Your task to perform on an android device: toggle notifications settings in the gmail app Image 0: 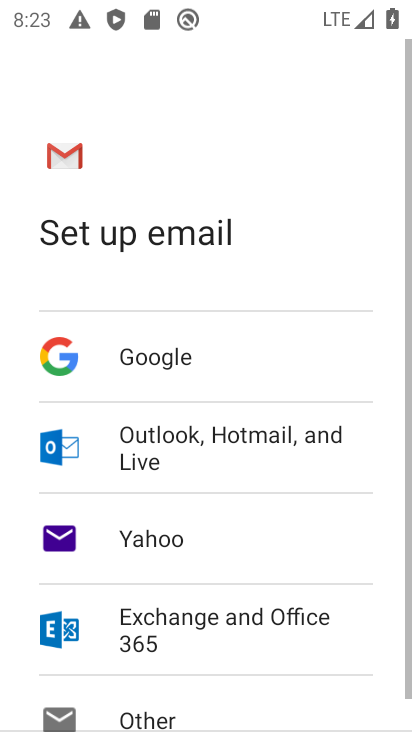
Step 0: press home button
Your task to perform on an android device: toggle notifications settings in the gmail app Image 1: 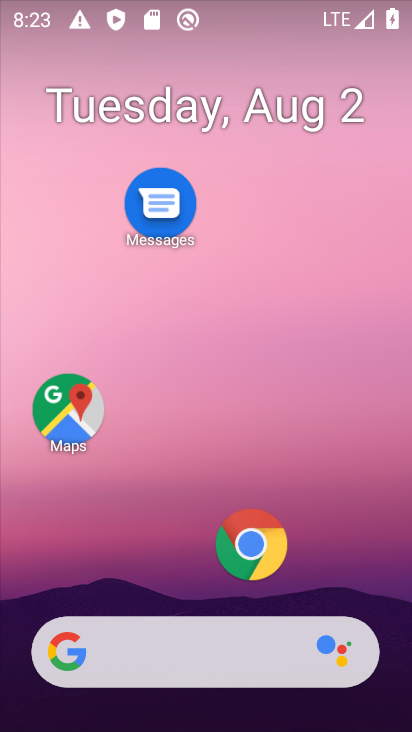
Step 1: drag from (167, 396) to (172, 162)
Your task to perform on an android device: toggle notifications settings in the gmail app Image 2: 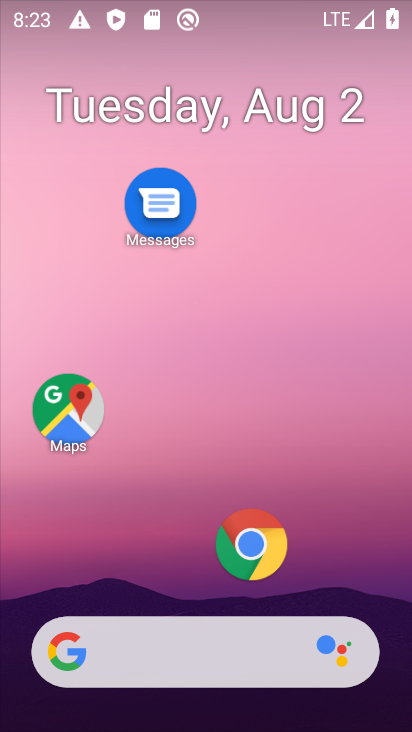
Step 2: drag from (180, 555) to (189, 181)
Your task to perform on an android device: toggle notifications settings in the gmail app Image 3: 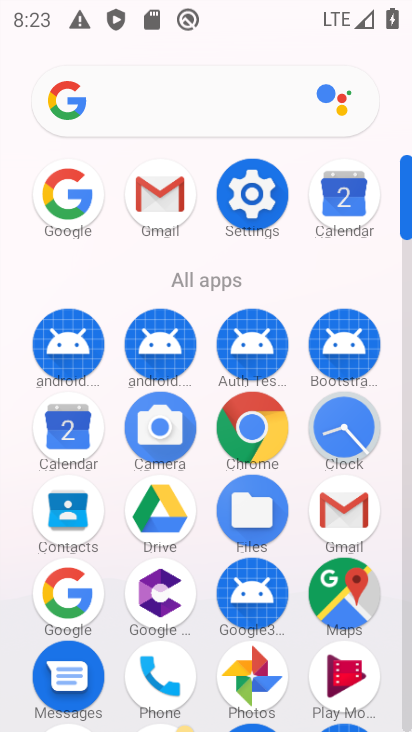
Step 3: click (166, 207)
Your task to perform on an android device: toggle notifications settings in the gmail app Image 4: 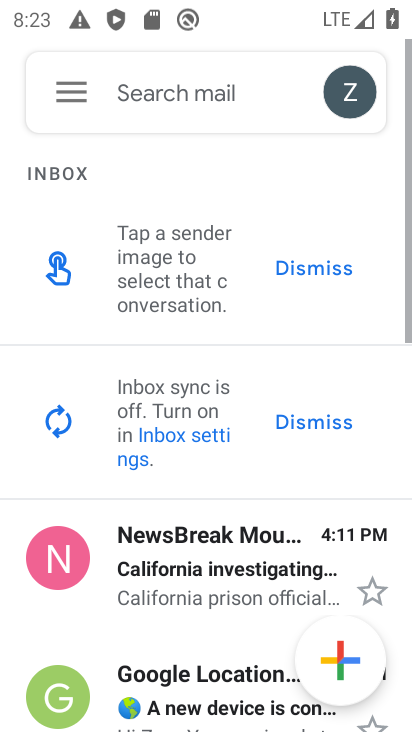
Step 4: click (88, 103)
Your task to perform on an android device: toggle notifications settings in the gmail app Image 5: 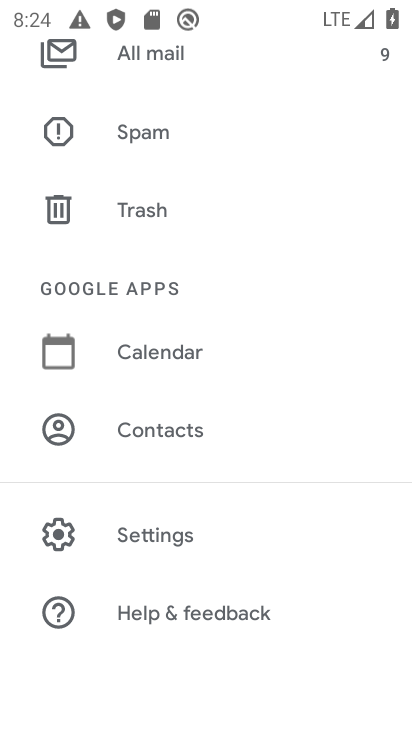
Step 5: click (146, 517)
Your task to perform on an android device: toggle notifications settings in the gmail app Image 6: 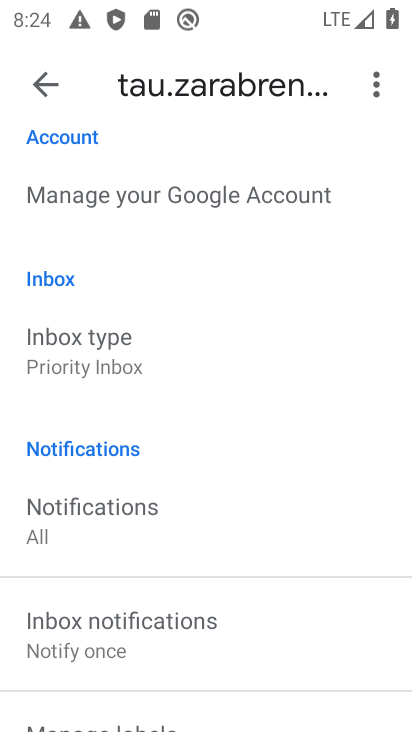
Step 6: drag from (186, 623) to (192, 300)
Your task to perform on an android device: toggle notifications settings in the gmail app Image 7: 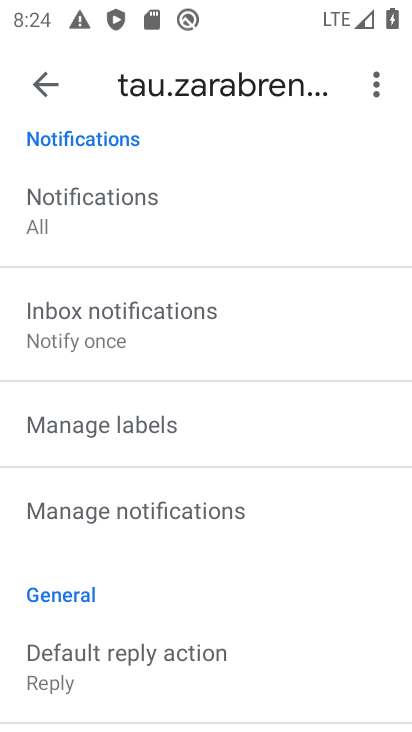
Step 7: click (184, 494)
Your task to perform on an android device: toggle notifications settings in the gmail app Image 8: 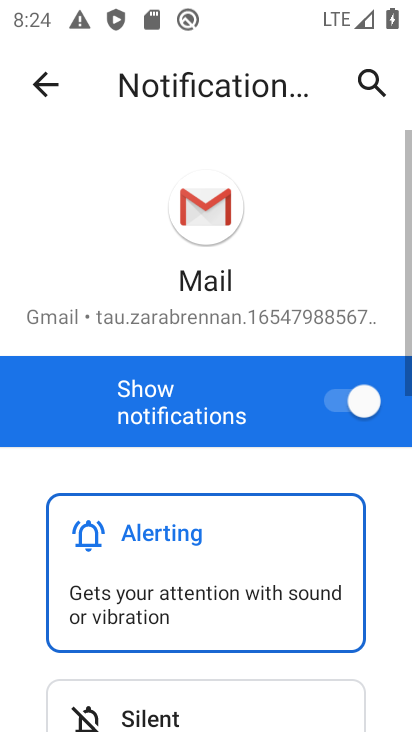
Step 8: click (327, 383)
Your task to perform on an android device: toggle notifications settings in the gmail app Image 9: 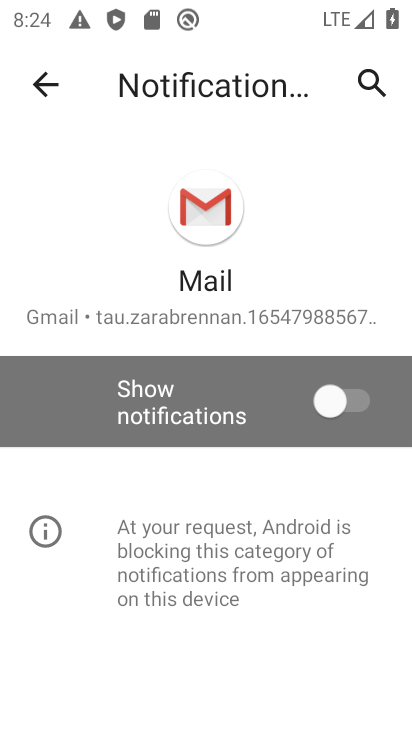
Step 9: task complete